Your task to perform on an android device: empty trash in google photos Image 0: 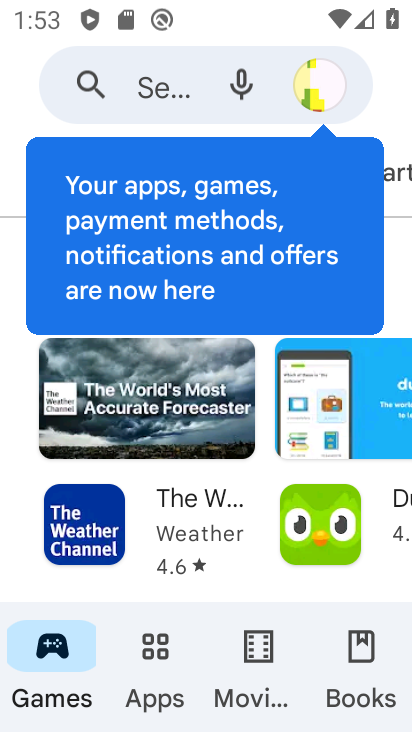
Step 0: press home button
Your task to perform on an android device: empty trash in google photos Image 1: 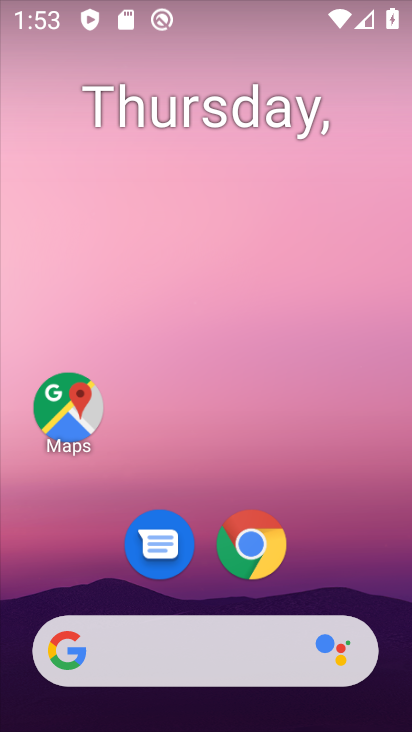
Step 1: drag from (257, 421) to (73, 108)
Your task to perform on an android device: empty trash in google photos Image 2: 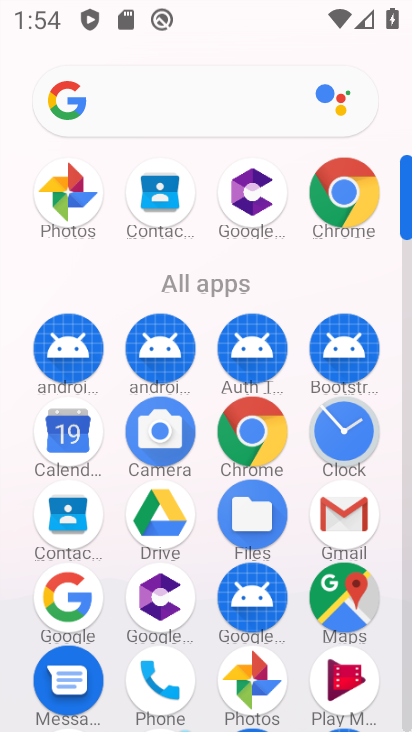
Step 2: click (71, 193)
Your task to perform on an android device: empty trash in google photos Image 3: 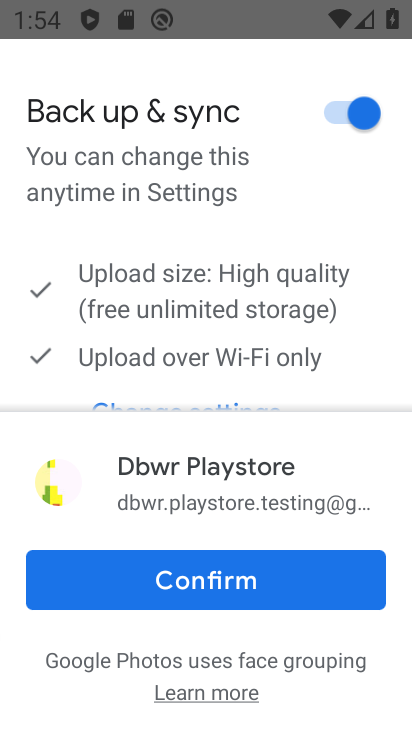
Step 3: click (215, 586)
Your task to perform on an android device: empty trash in google photos Image 4: 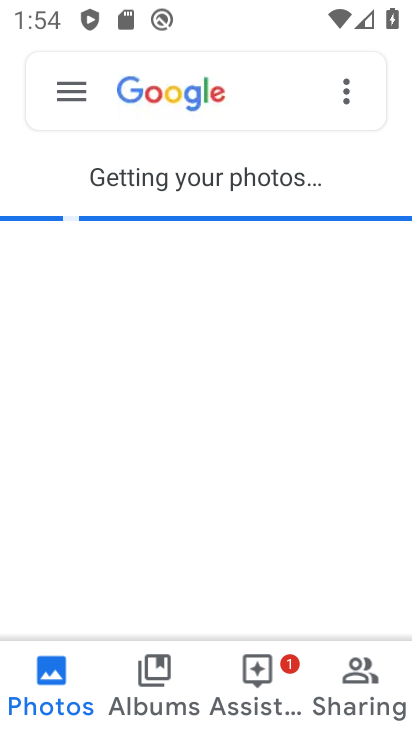
Step 4: click (77, 92)
Your task to perform on an android device: empty trash in google photos Image 5: 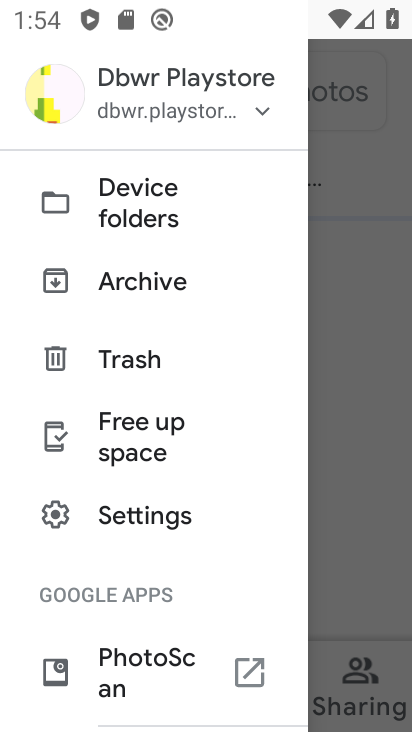
Step 5: click (115, 357)
Your task to perform on an android device: empty trash in google photos Image 6: 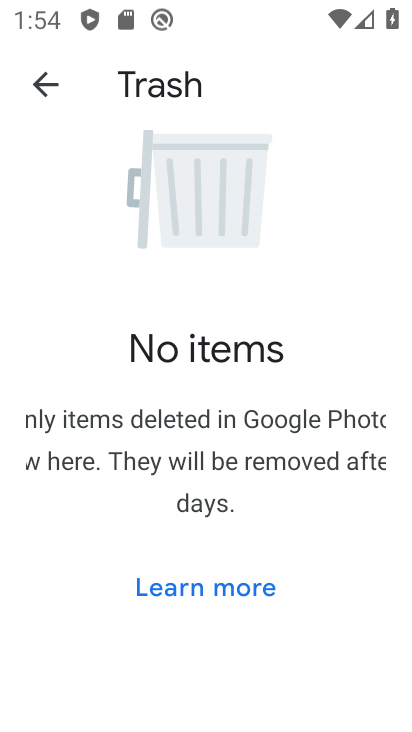
Step 6: task complete